Your task to perform on an android device: Show me productivity apps on the Play Store Image 0: 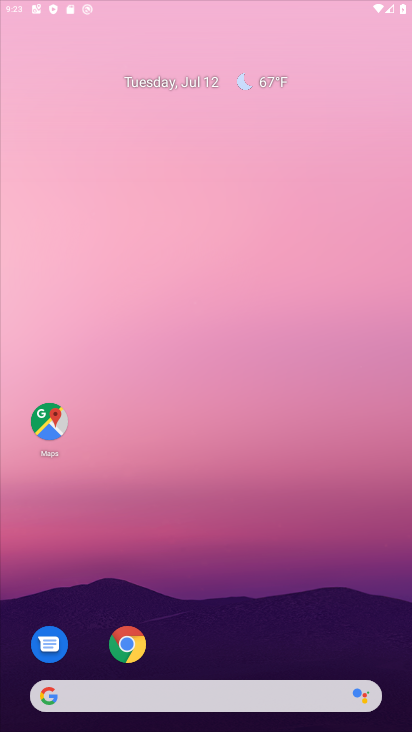
Step 0: click (245, 233)
Your task to perform on an android device: Show me productivity apps on the Play Store Image 1: 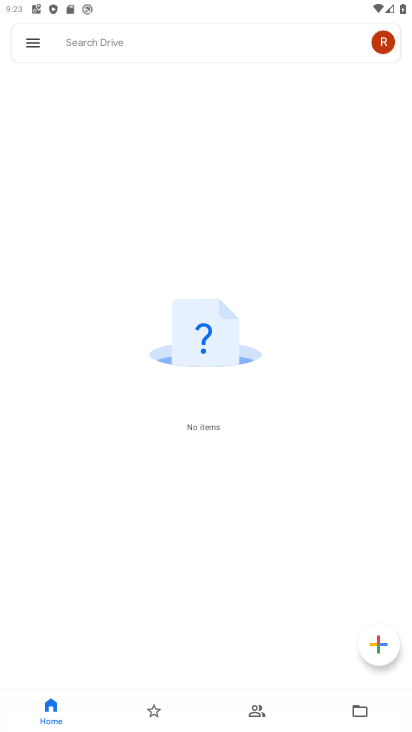
Step 1: press home button
Your task to perform on an android device: Show me productivity apps on the Play Store Image 2: 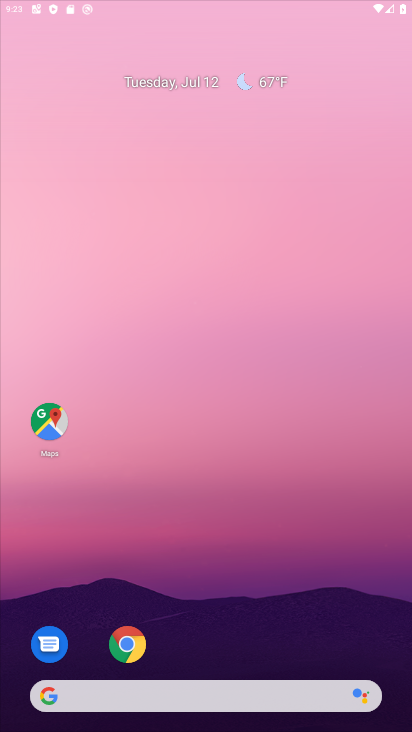
Step 2: drag from (152, 614) to (208, 62)
Your task to perform on an android device: Show me productivity apps on the Play Store Image 3: 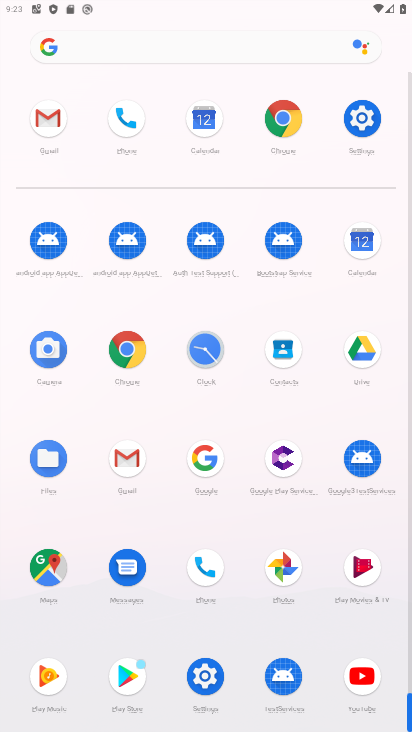
Step 3: click (124, 673)
Your task to perform on an android device: Show me productivity apps on the Play Store Image 4: 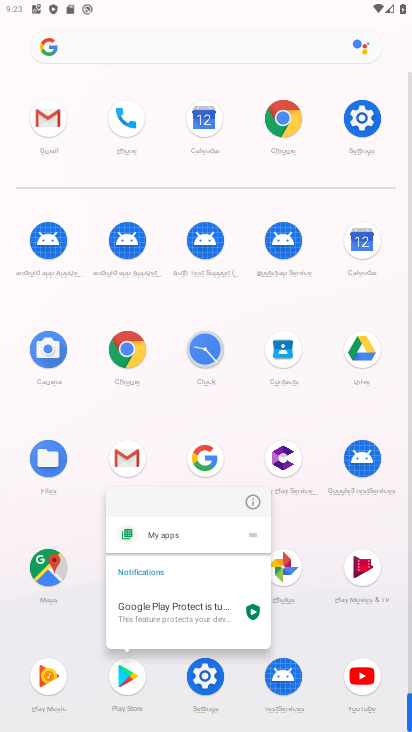
Step 4: click (251, 495)
Your task to perform on an android device: Show me productivity apps on the Play Store Image 5: 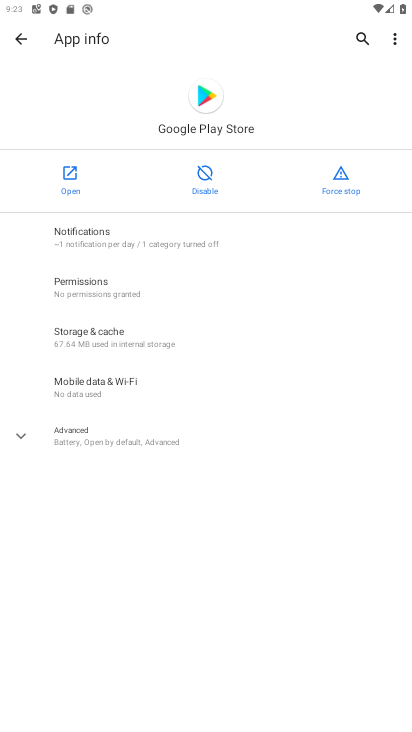
Step 5: click (65, 175)
Your task to perform on an android device: Show me productivity apps on the Play Store Image 6: 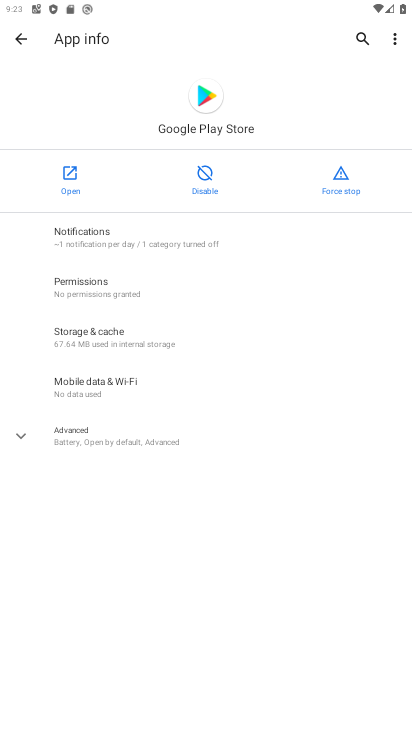
Step 6: click (65, 175)
Your task to perform on an android device: Show me productivity apps on the Play Store Image 7: 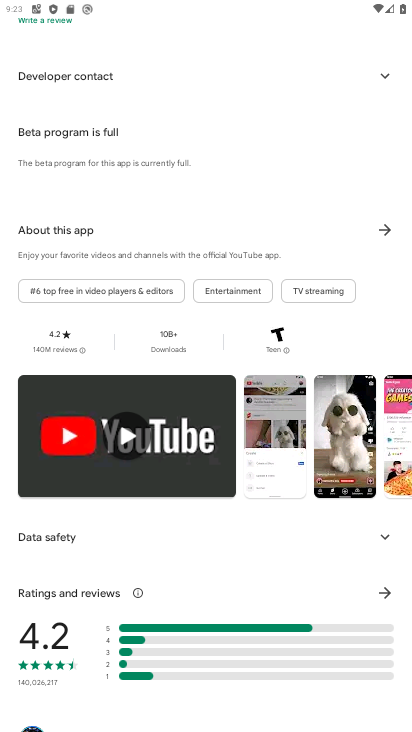
Step 7: drag from (220, 567) to (245, 278)
Your task to perform on an android device: Show me productivity apps on the Play Store Image 8: 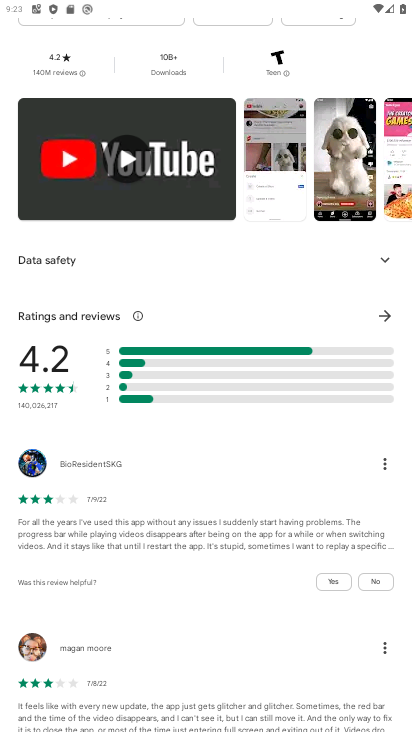
Step 8: drag from (246, 164) to (248, 731)
Your task to perform on an android device: Show me productivity apps on the Play Store Image 9: 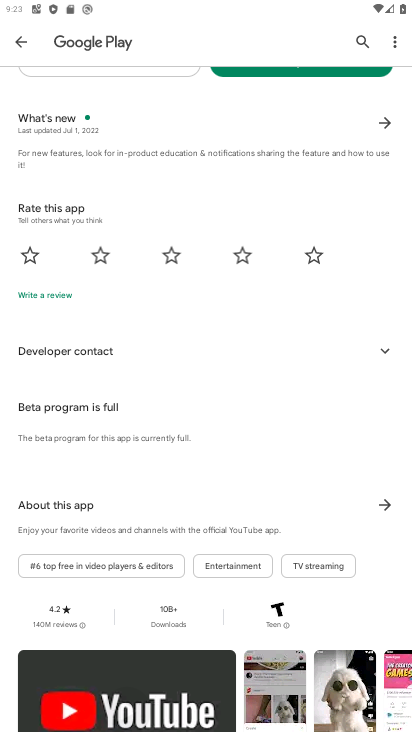
Step 9: drag from (207, 166) to (253, 618)
Your task to perform on an android device: Show me productivity apps on the Play Store Image 10: 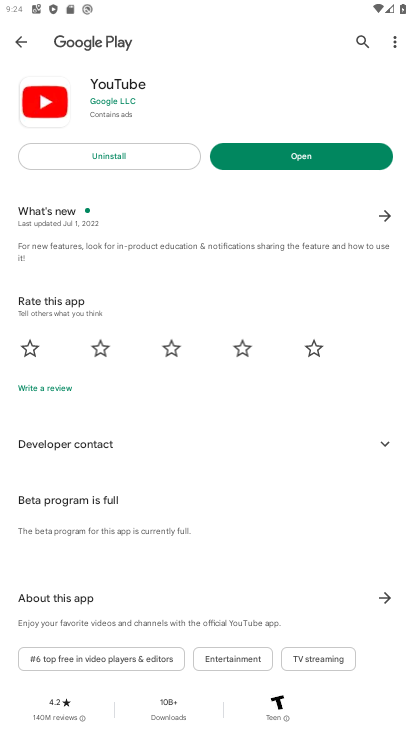
Step 10: drag from (280, 554) to (310, 341)
Your task to perform on an android device: Show me productivity apps on the Play Store Image 11: 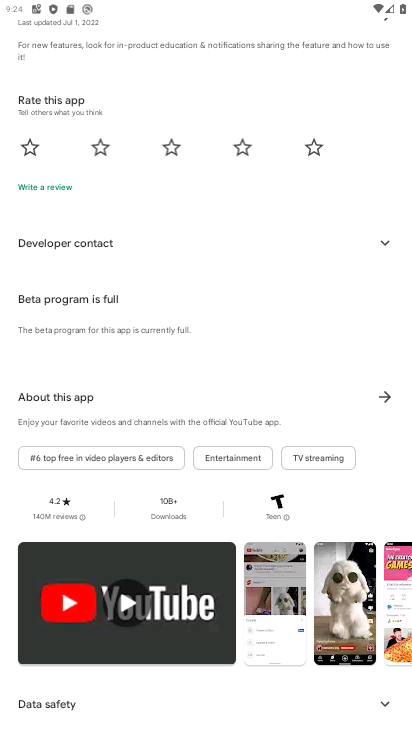
Step 11: drag from (146, 154) to (309, 716)
Your task to perform on an android device: Show me productivity apps on the Play Store Image 12: 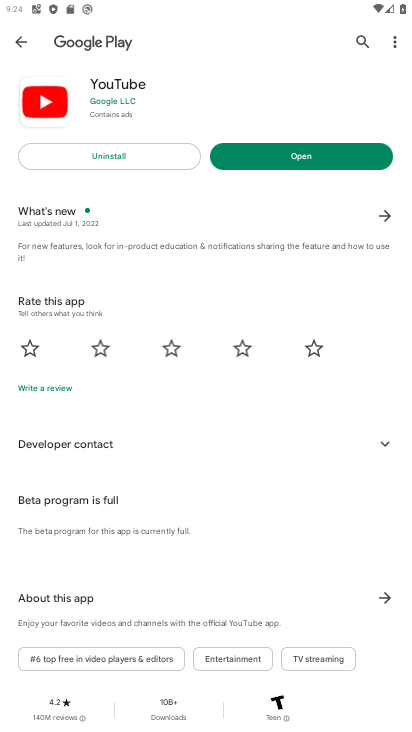
Step 12: click (21, 24)
Your task to perform on an android device: Show me productivity apps on the Play Store Image 13: 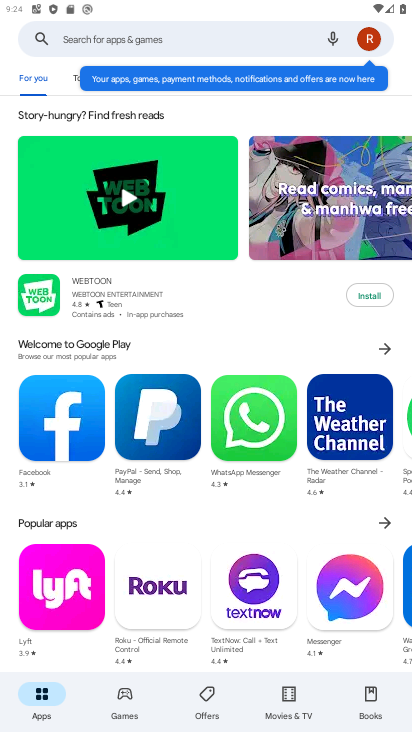
Step 13: task complete